Your task to perform on an android device: Search for Italian restaurants on Maps Image 0: 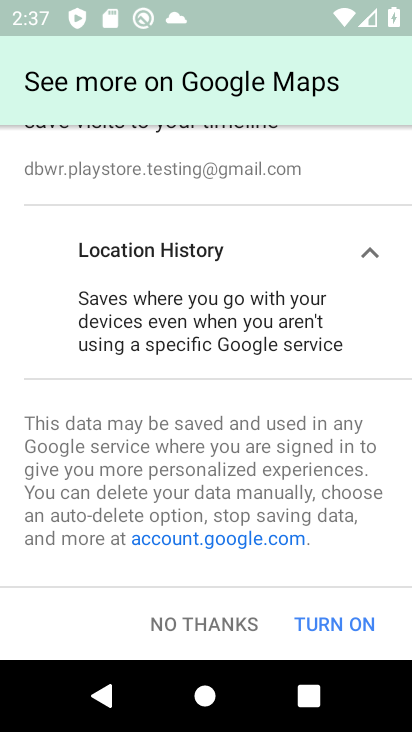
Step 0: press home button
Your task to perform on an android device: Search for Italian restaurants on Maps Image 1: 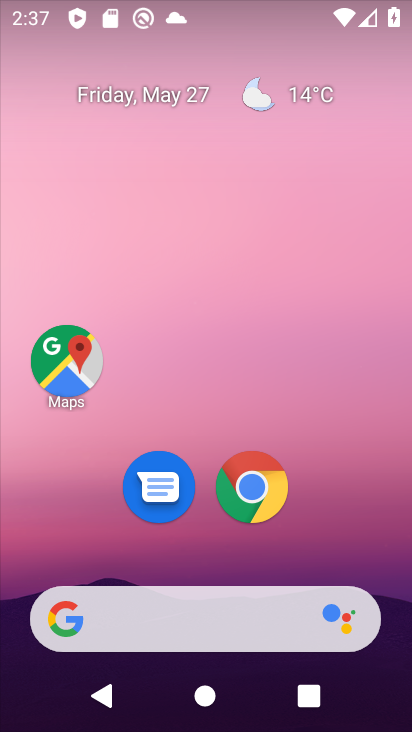
Step 1: click (60, 361)
Your task to perform on an android device: Search for Italian restaurants on Maps Image 2: 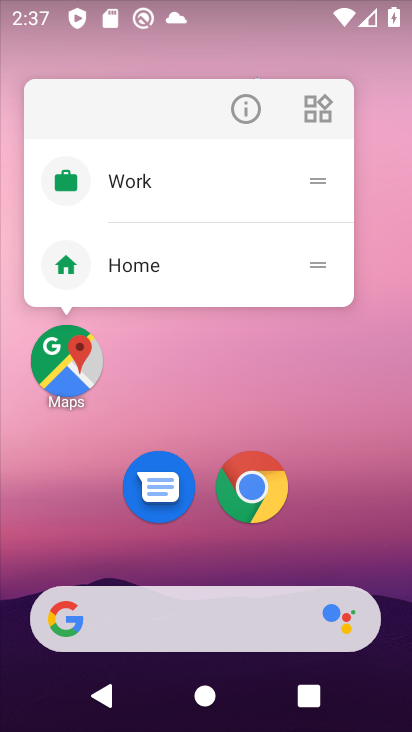
Step 2: click (81, 362)
Your task to perform on an android device: Search for Italian restaurants on Maps Image 3: 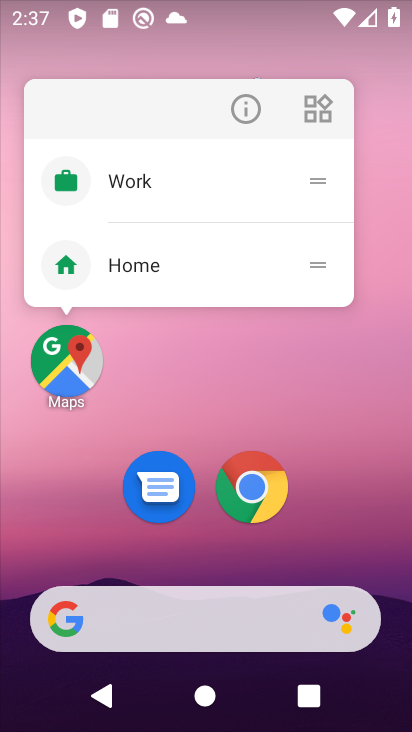
Step 3: click (243, 381)
Your task to perform on an android device: Search for Italian restaurants on Maps Image 4: 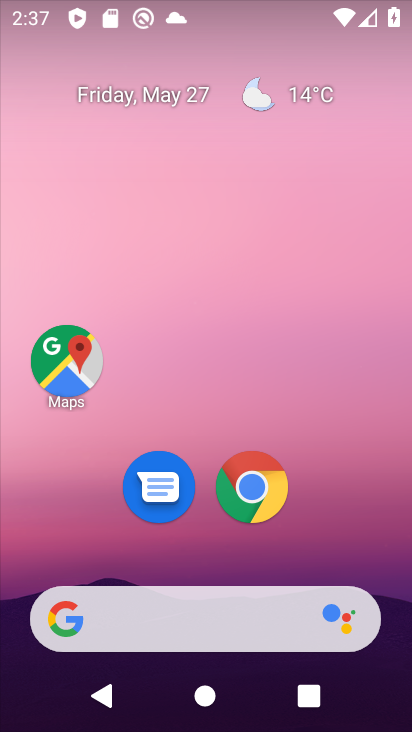
Step 4: drag from (332, 517) to (384, 53)
Your task to perform on an android device: Search for Italian restaurants on Maps Image 5: 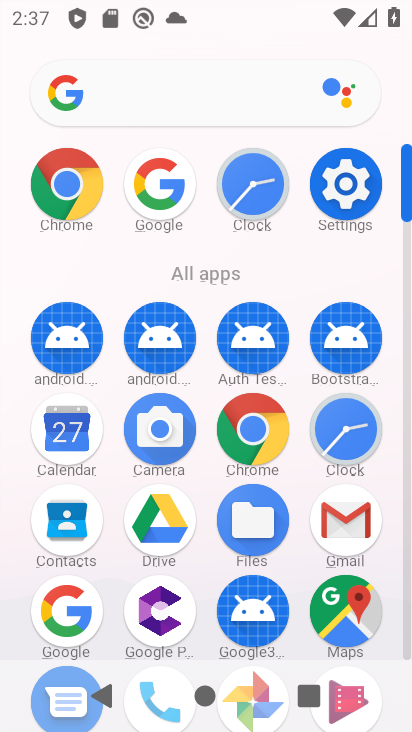
Step 5: click (351, 613)
Your task to perform on an android device: Search for Italian restaurants on Maps Image 6: 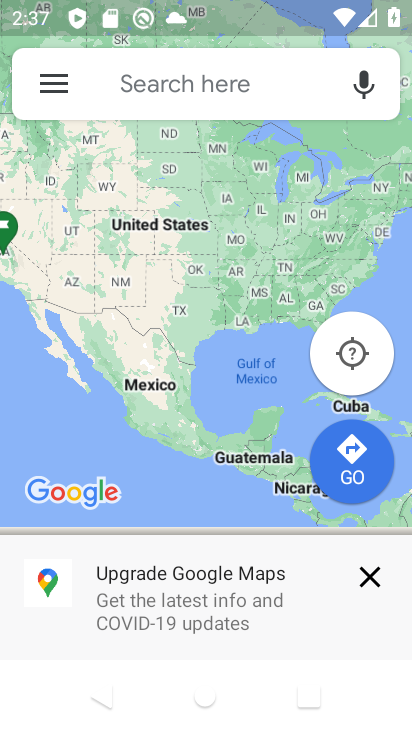
Step 6: click (367, 575)
Your task to perform on an android device: Search for Italian restaurants on Maps Image 7: 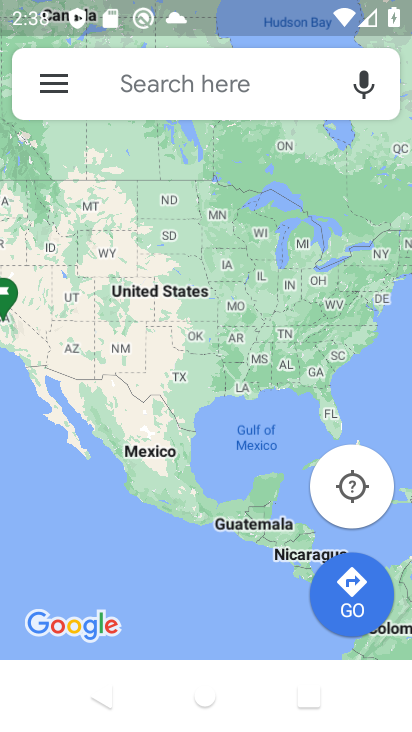
Step 7: click (242, 91)
Your task to perform on an android device: Search for Italian restaurants on Maps Image 8: 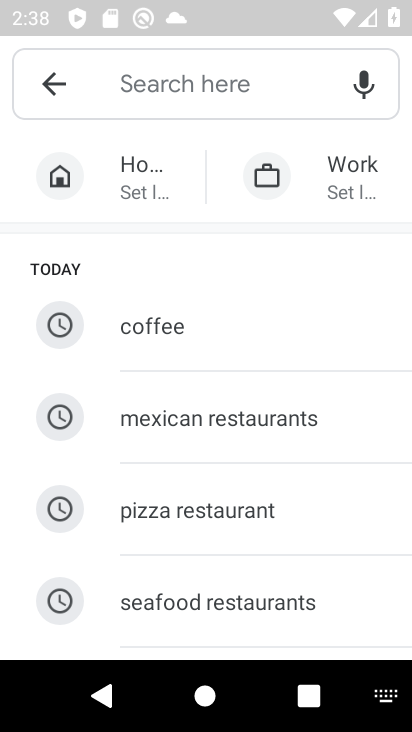
Step 8: type " Italian restaurants"
Your task to perform on an android device: Search for Italian restaurants on Maps Image 9: 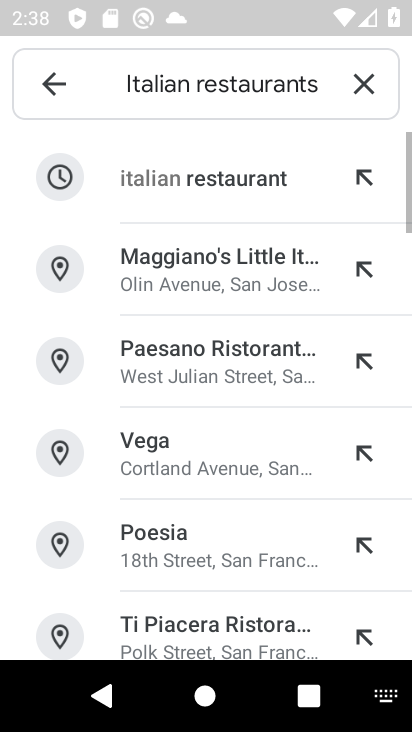
Step 9: click (247, 179)
Your task to perform on an android device: Search for Italian restaurants on Maps Image 10: 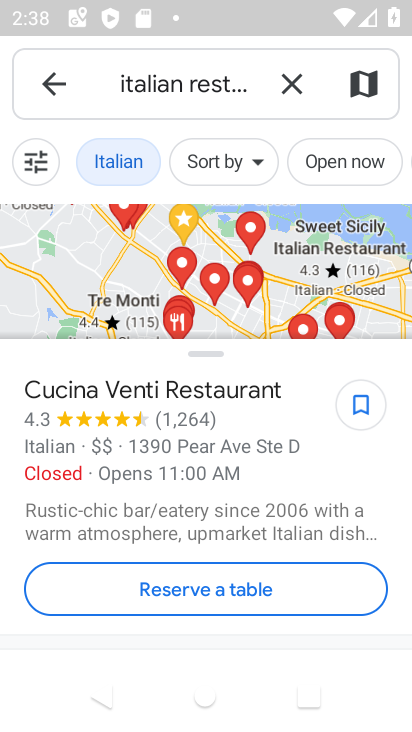
Step 10: task complete